Your task to perform on an android device: turn pop-ups on in chrome Image 0: 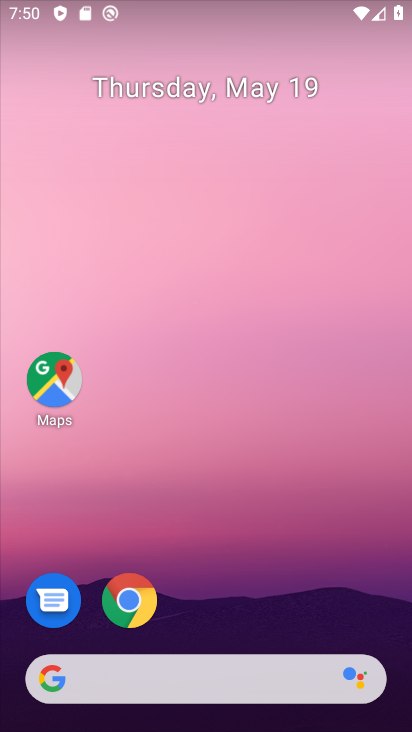
Step 0: drag from (249, 611) to (266, 109)
Your task to perform on an android device: turn pop-ups on in chrome Image 1: 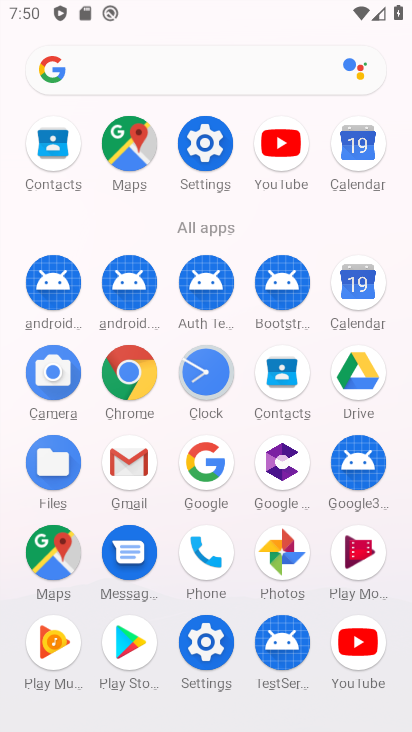
Step 1: click (139, 402)
Your task to perform on an android device: turn pop-ups on in chrome Image 2: 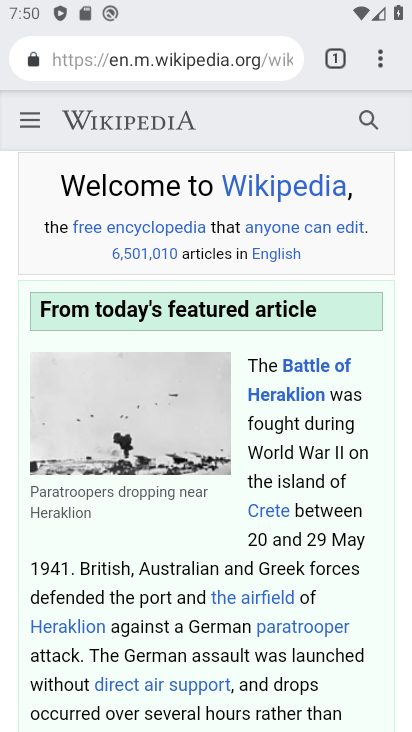
Step 2: click (389, 72)
Your task to perform on an android device: turn pop-ups on in chrome Image 3: 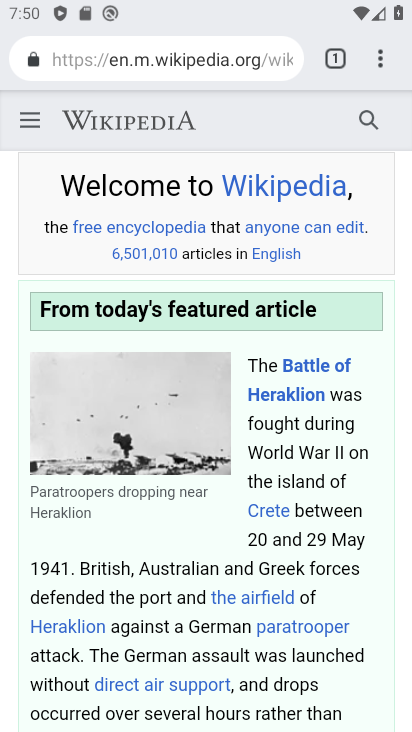
Step 3: click (380, 60)
Your task to perform on an android device: turn pop-ups on in chrome Image 4: 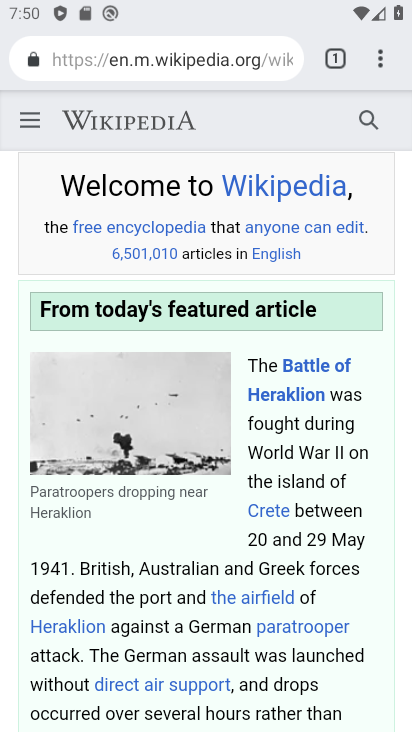
Step 4: click (369, 67)
Your task to perform on an android device: turn pop-ups on in chrome Image 5: 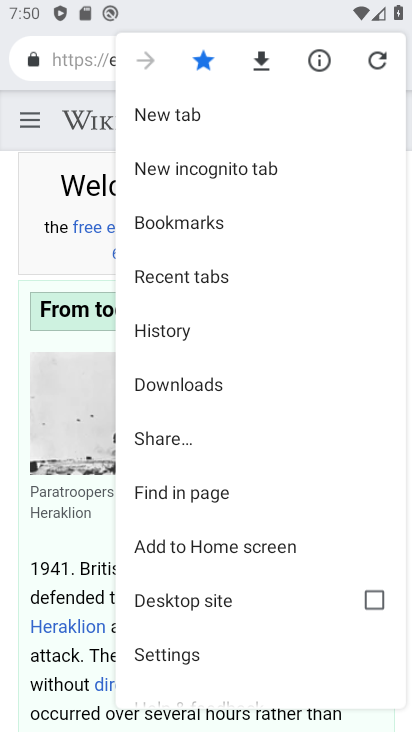
Step 5: click (186, 644)
Your task to perform on an android device: turn pop-ups on in chrome Image 6: 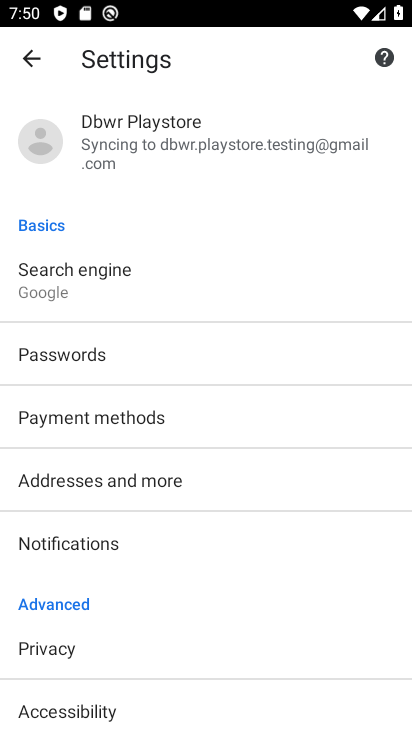
Step 6: drag from (133, 629) to (155, 262)
Your task to perform on an android device: turn pop-ups on in chrome Image 7: 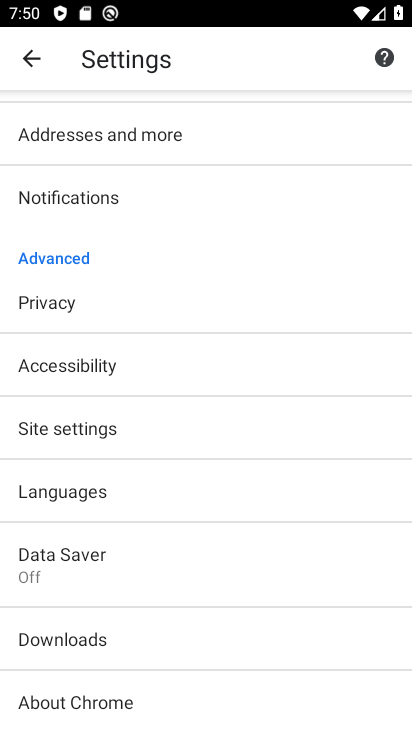
Step 7: click (129, 410)
Your task to perform on an android device: turn pop-ups on in chrome Image 8: 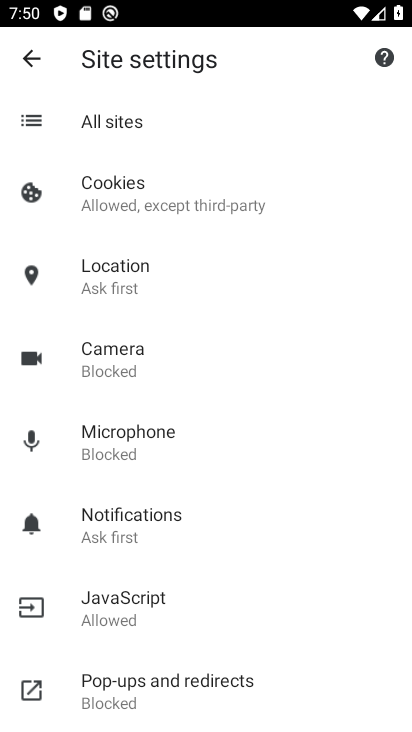
Step 8: click (156, 595)
Your task to perform on an android device: turn pop-ups on in chrome Image 9: 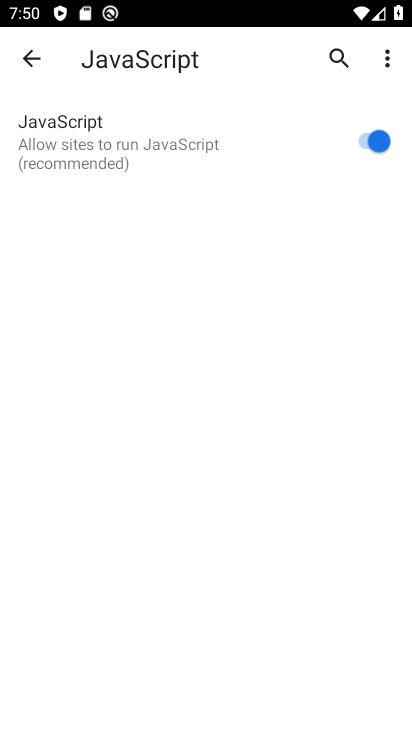
Step 9: click (355, 134)
Your task to perform on an android device: turn pop-ups on in chrome Image 10: 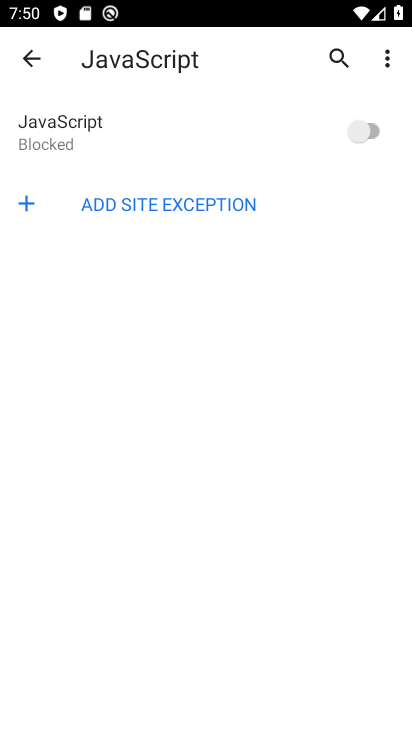
Step 10: task complete